Your task to perform on an android device: turn off picture-in-picture Image 0: 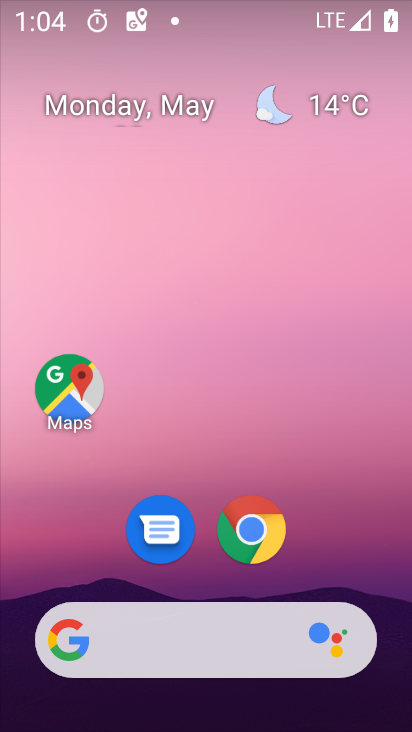
Step 0: drag from (395, 551) to (380, 205)
Your task to perform on an android device: turn off picture-in-picture Image 1: 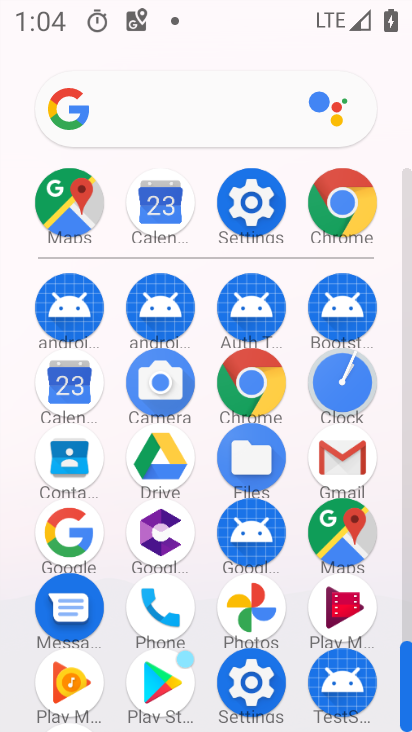
Step 1: click (278, 205)
Your task to perform on an android device: turn off picture-in-picture Image 2: 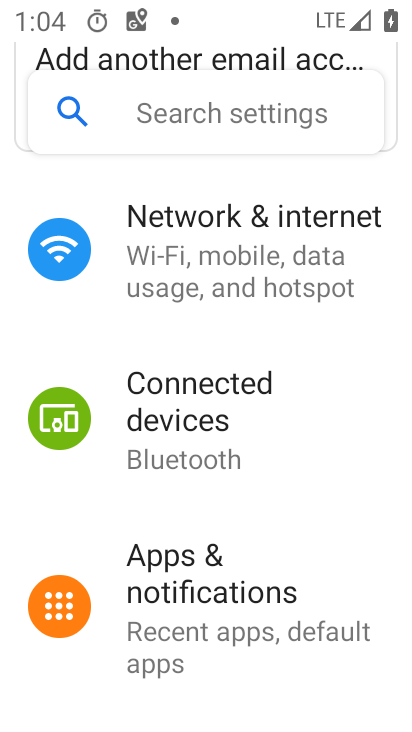
Step 2: drag from (356, 565) to (359, 432)
Your task to perform on an android device: turn off picture-in-picture Image 3: 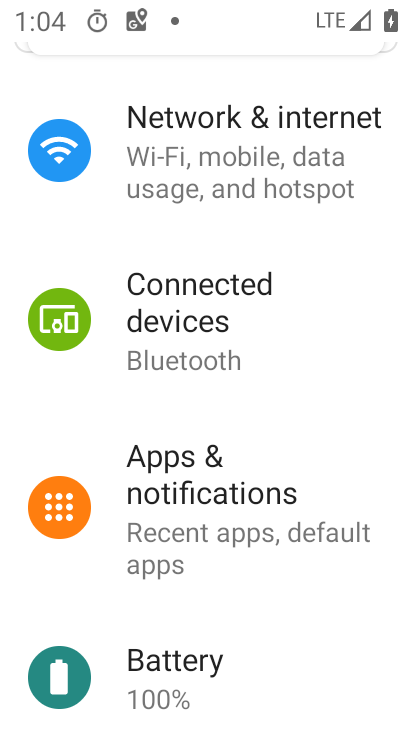
Step 3: drag from (364, 624) to (371, 483)
Your task to perform on an android device: turn off picture-in-picture Image 4: 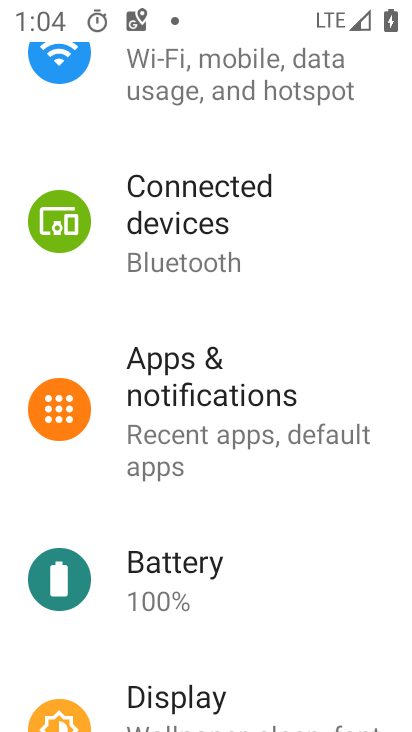
Step 4: drag from (375, 633) to (377, 511)
Your task to perform on an android device: turn off picture-in-picture Image 5: 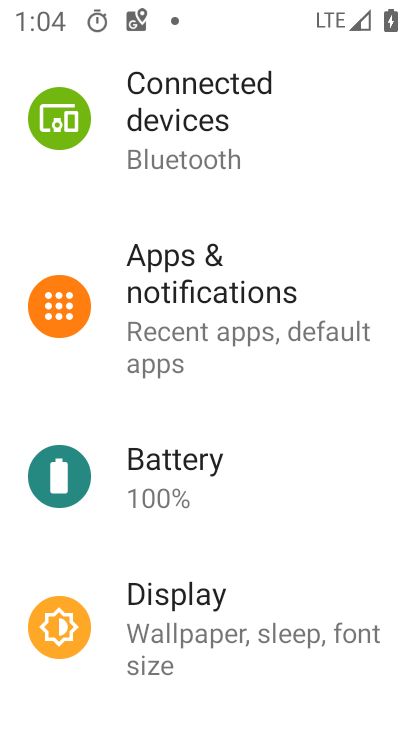
Step 5: drag from (385, 669) to (379, 564)
Your task to perform on an android device: turn off picture-in-picture Image 6: 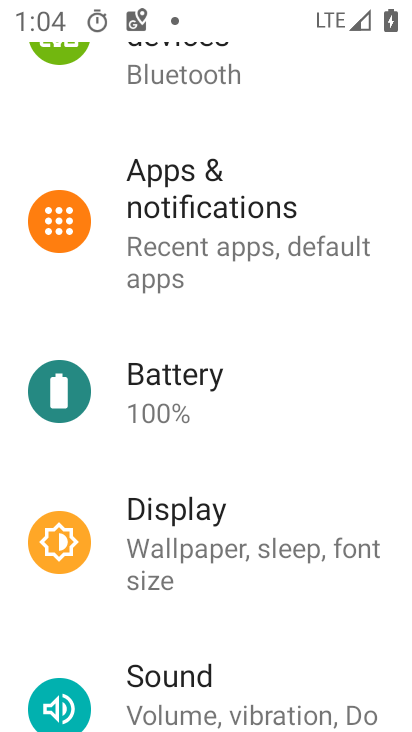
Step 6: drag from (379, 665) to (383, 551)
Your task to perform on an android device: turn off picture-in-picture Image 7: 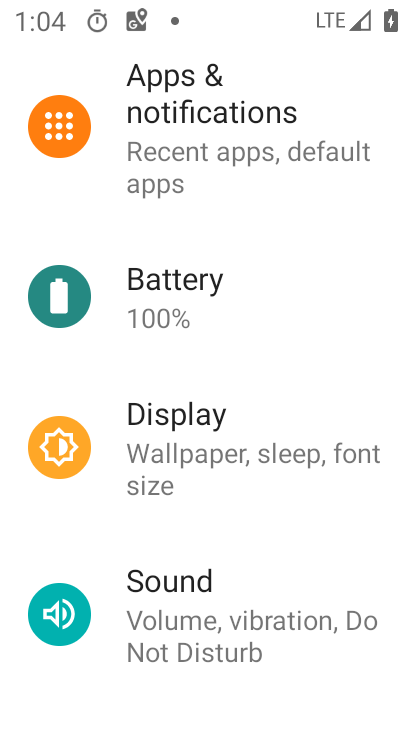
Step 7: drag from (377, 679) to (377, 562)
Your task to perform on an android device: turn off picture-in-picture Image 8: 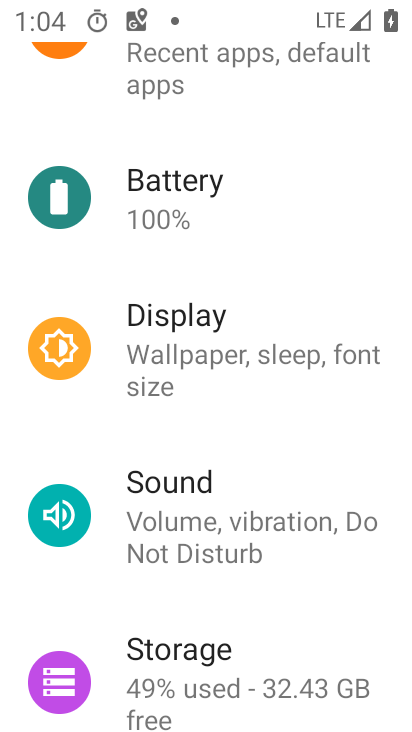
Step 8: drag from (380, 664) to (372, 551)
Your task to perform on an android device: turn off picture-in-picture Image 9: 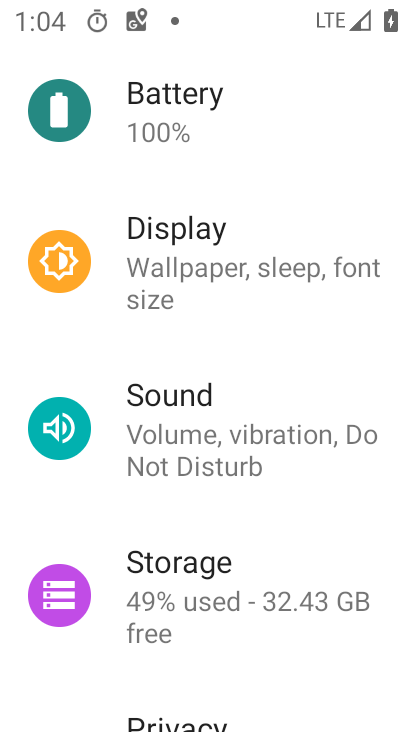
Step 9: drag from (386, 698) to (368, 538)
Your task to perform on an android device: turn off picture-in-picture Image 10: 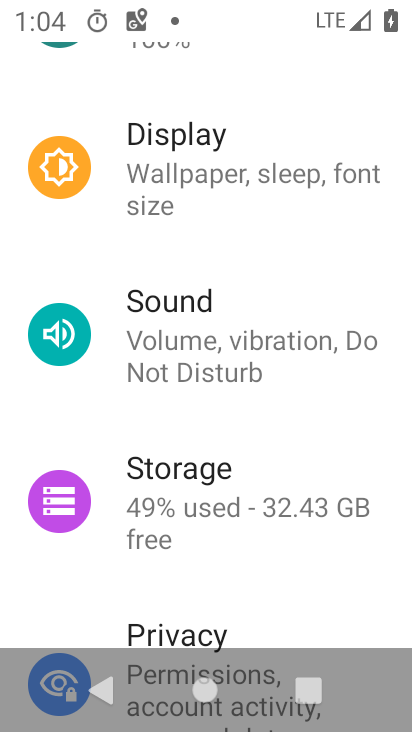
Step 10: drag from (365, 614) to (370, 481)
Your task to perform on an android device: turn off picture-in-picture Image 11: 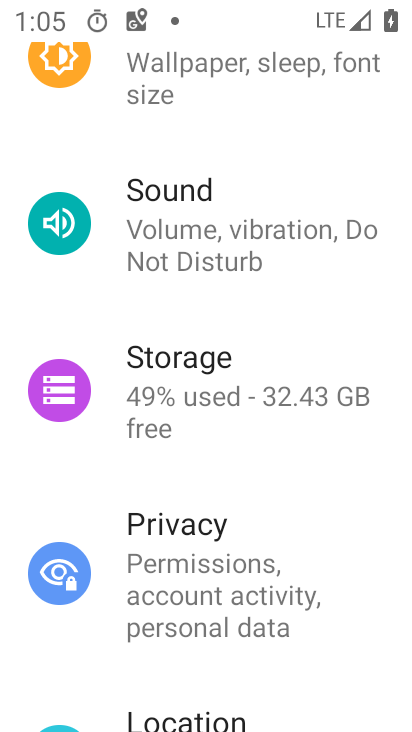
Step 11: drag from (362, 639) to (354, 531)
Your task to perform on an android device: turn off picture-in-picture Image 12: 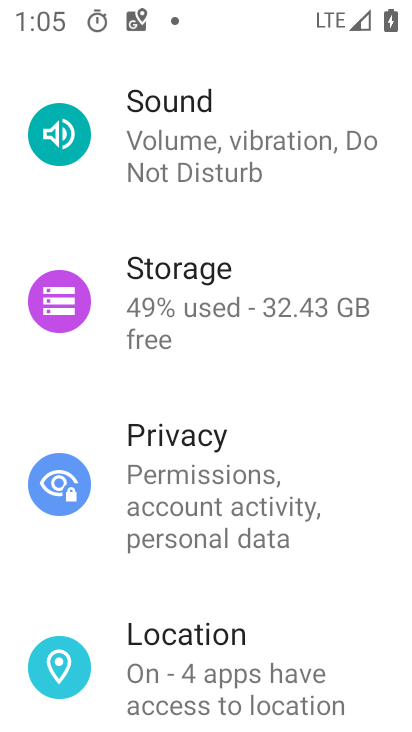
Step 12: drag from (350, 686) to (343, 543)
Your task to perform on an android device: turn off picture-in-picture Image 13: 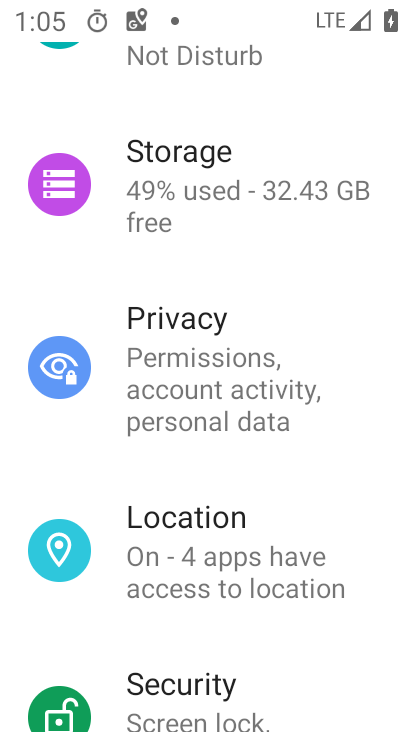
Step 13: drag from (364, 665) to (365, 545)
Your task to perform on an android device: turn off picture-in-picture Image 14: 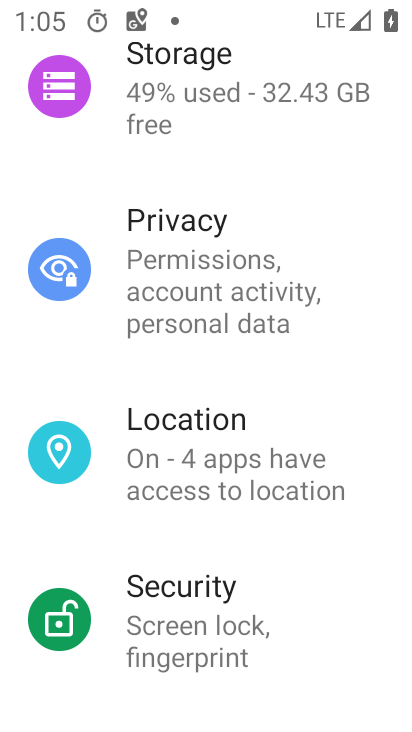
Step 14: drag from (363, 576) to (374, 418)
Your task to perform on an android device: turn off picture-in-picture Image 15: 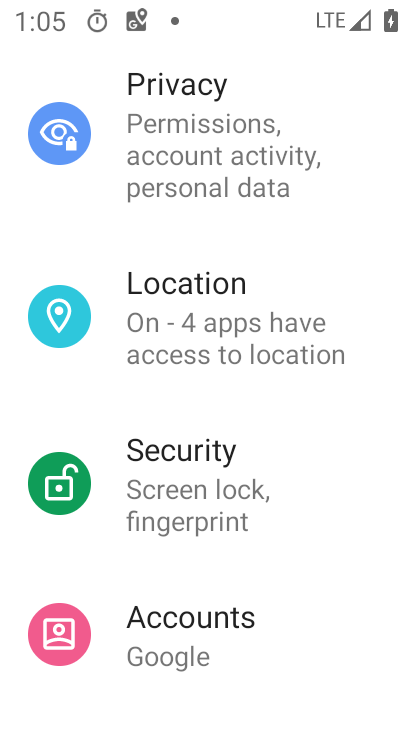
Step 15: drag from (354, 622) to (366, 394)
Your task to perform on an android device: turn off picture-in-picture Image 16: 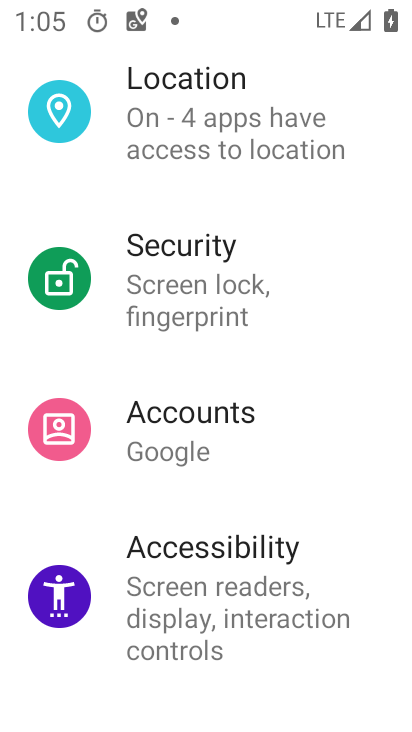
Step 16: drag from (358, 607) to (365, 369)
Your task to perform on an android device: turn off picture-in-picture Image 17: 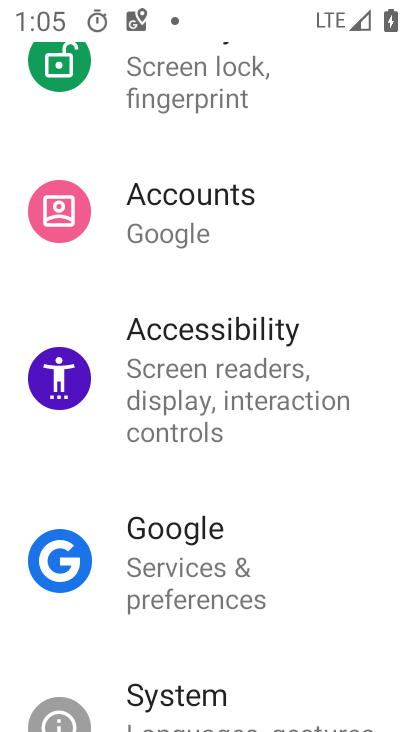
Step 17: drag from (350, 568) to (360, 363)
Your task to perform on an android device: turn off picture-in-picture Image 18: 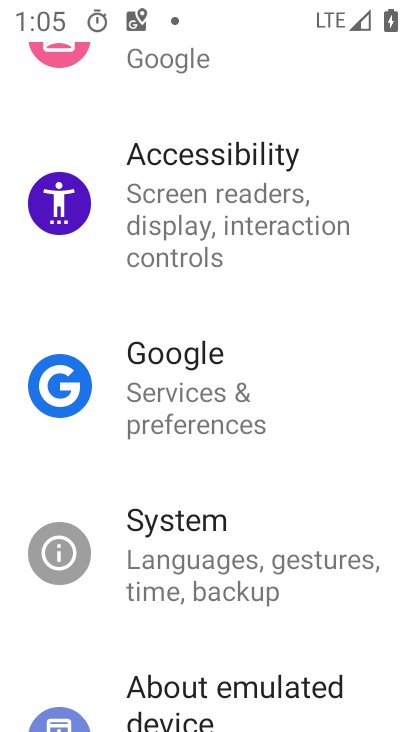
Step 18: drag from (357, 332) to (347, 475)
Your task to perform on an android device: turn off picture-in-picture Image 19: 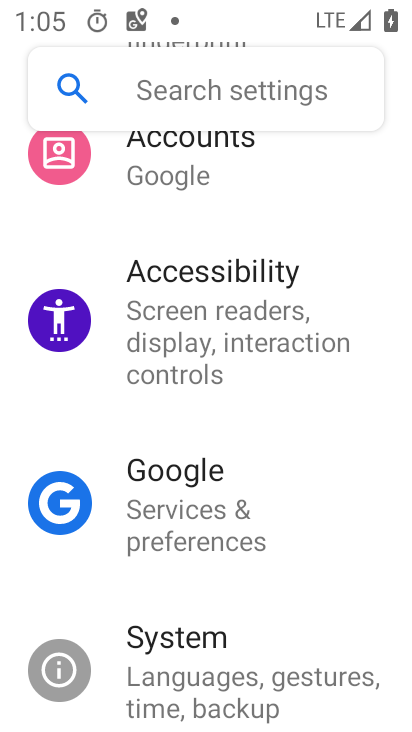
Step 19: drag from (371, 279) to (370, 411)
Your task to perform on an android device: turn off picture-in-picture Image 20: 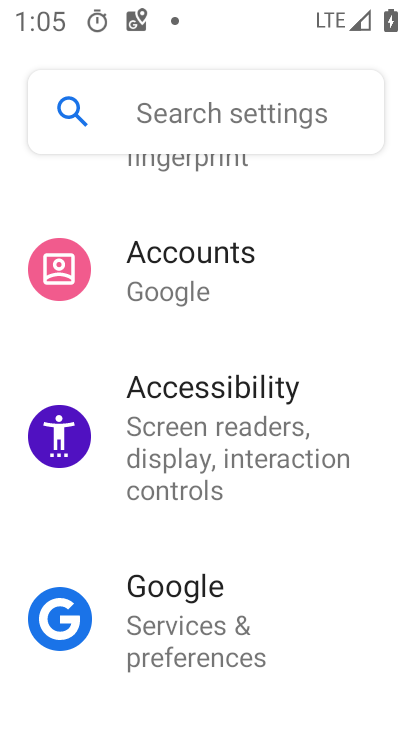
Step 20: drag from (371, 245) to (369, 382)
Your task to perform on an android device: turn off picture-in-picture Image 21: 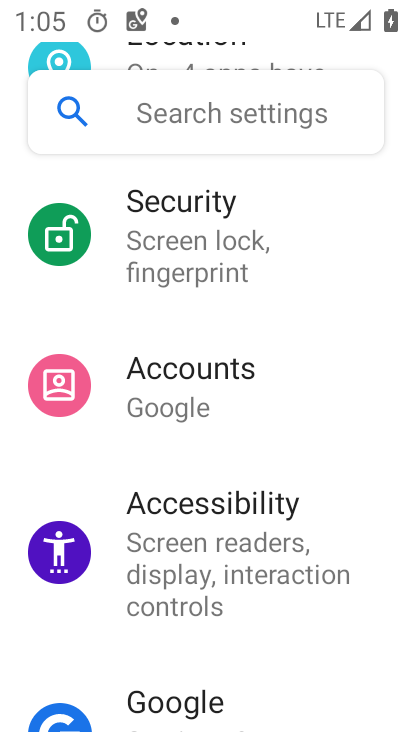
Step 21: drag from (353, 244) to (351, 374)
Your task to perform on an android device: turn off picture-in-picture Image 22: 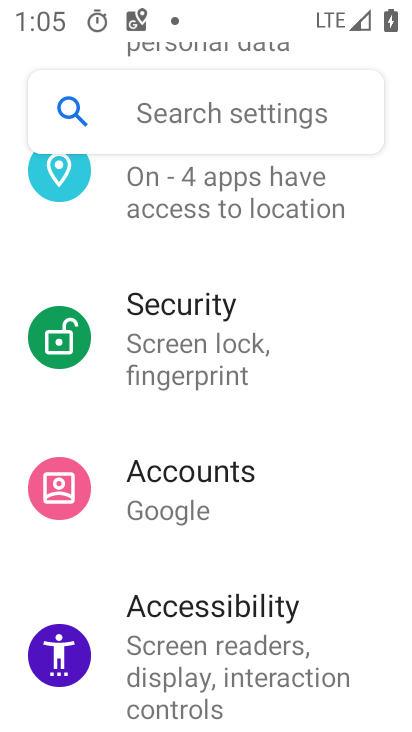
Step 22: drag from (382, 217) to (375, 386)
Your task to perform on an android device: turn off picture-in-picture Image 23: 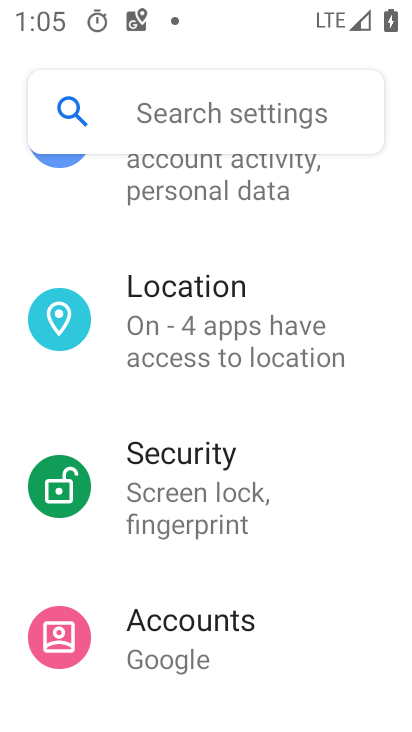
Step 23: drag from (357, 191) to (352, 346)
Your task to perform on an android device: turn off picture-in-picture Image 24: 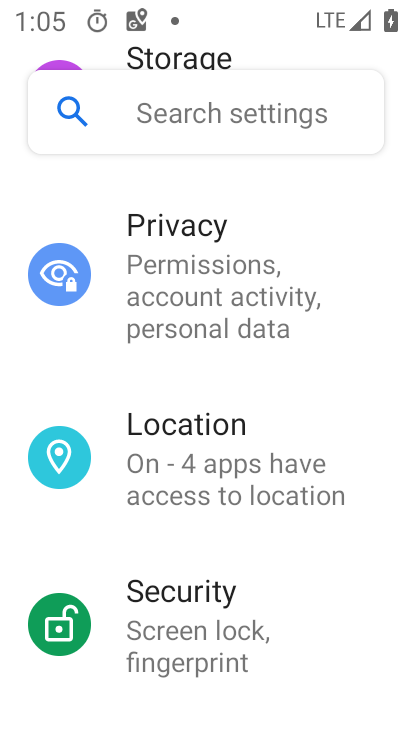
Step 24: drag from (349, 219) to (344, 348)
Your task to perform on an android device: turn off picture-in-picture Image 25: 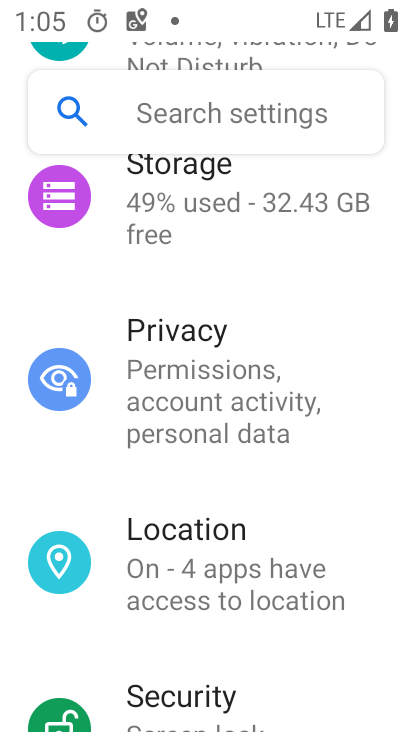
Step 25: drag from (344, 234) to (345, 348)
Your task to perform on an android device: turn off picture-in-picture Image 26: 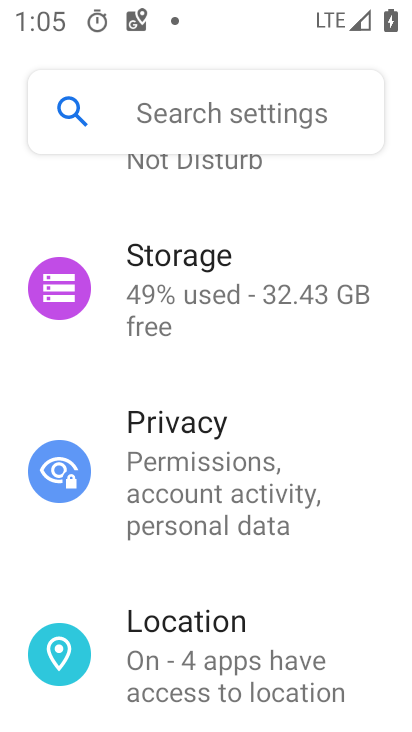
Step 26: drag from (349, 206) to (340, 363)
Your task to perform on an android device: turn off picture-in-picture Image 27: 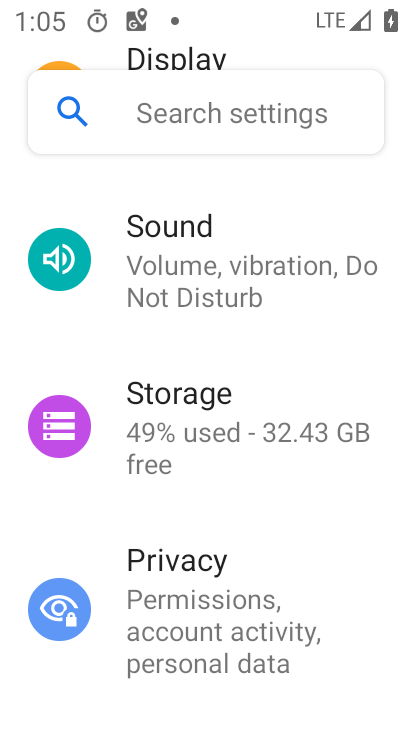
Step 27: drag from (365, 189) to (346, 348)
Your task to perform on an android device: turn off picture-in-picture Image 28: 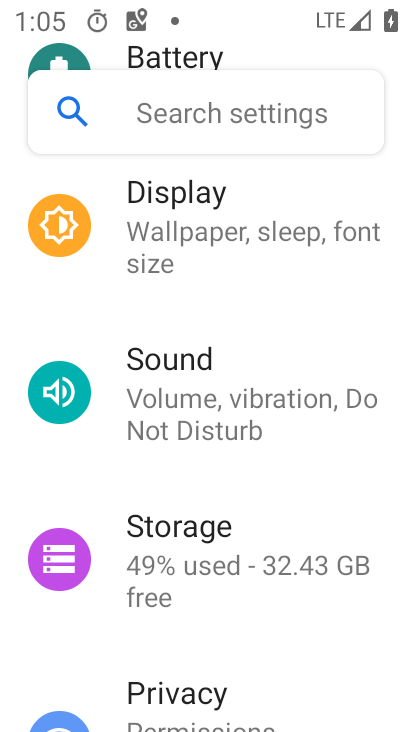
Step 28: drag from (382, 175) to (357, 309)
Your task to perform on an android device: turn off picture-in-picture Image 29: 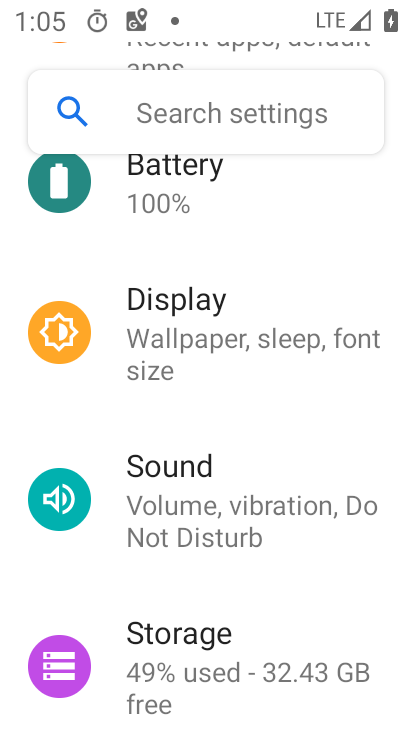
Step 29: drag from (349, 222) to (336, 355)
Your task to perform on an android device: turn off picture-in-picture Image 30: 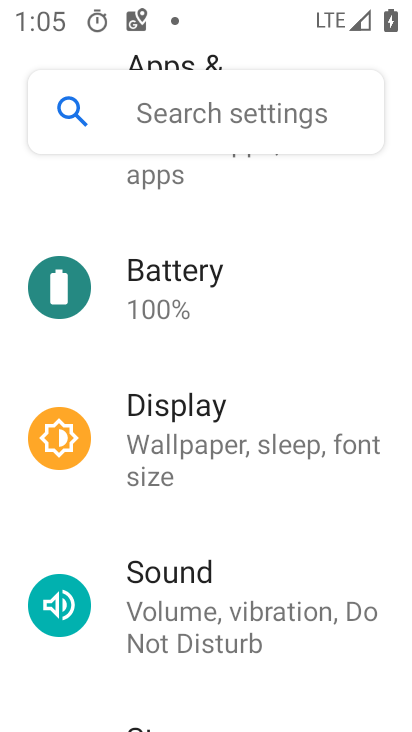
Step 30: drag from (345, 197) to (344, 351)
Your task to perform on an android device: turn off picture-in-picture Image 31: 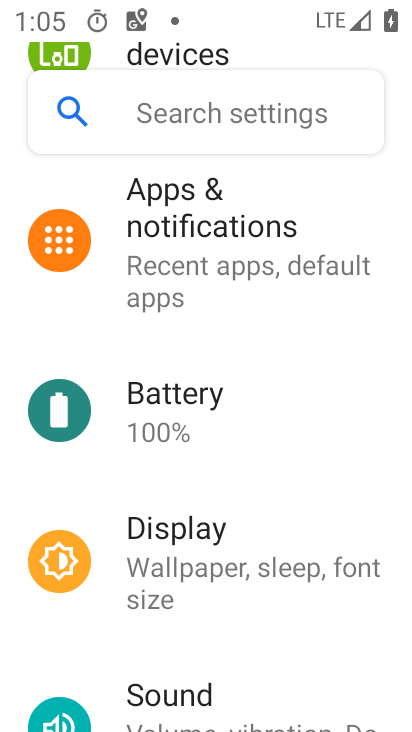
Step 31: click (282, 263)
Your task to perform on an android device: turn off picture-in-picture Image 32: 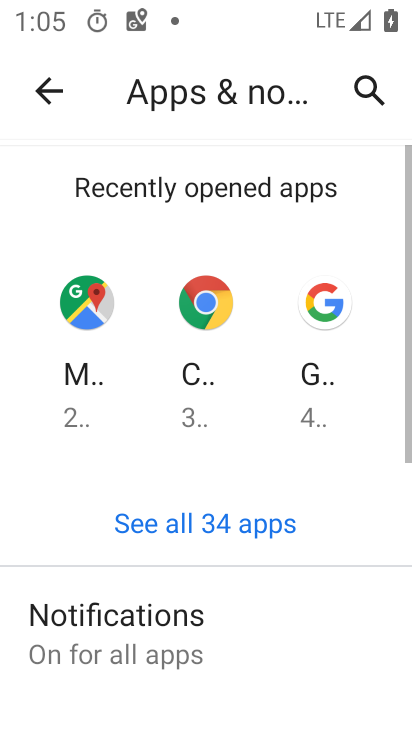
Step 32: drag from (294, 574) to (310, 424)
Your task to perform on an android device: turn off picture-in-picture Image 33: 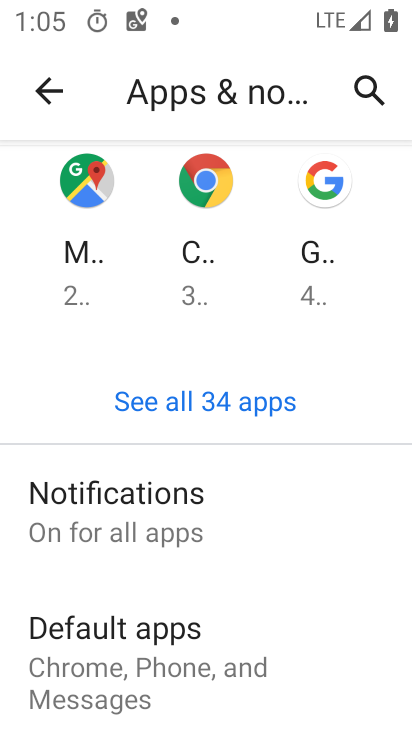
Step 33: drag from (310, 567) to (317, 431)
Your task to perform on an android device: turn off picture-in-picture Image 34: 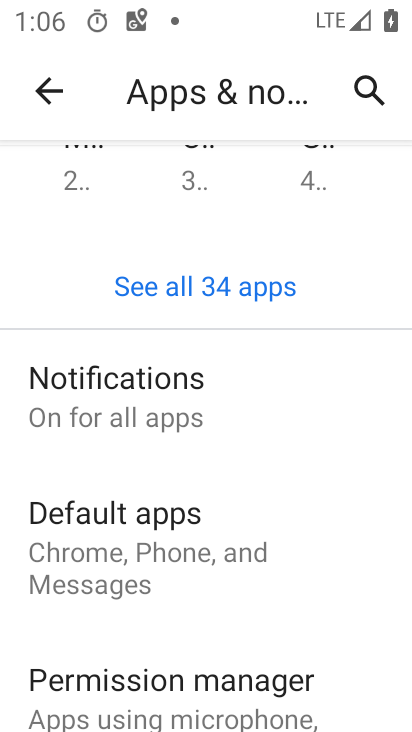
Step 34: drag from (312, 602) to (316, 451)
Your task to perform on an android device: turn off picture-in-picture Image 35: 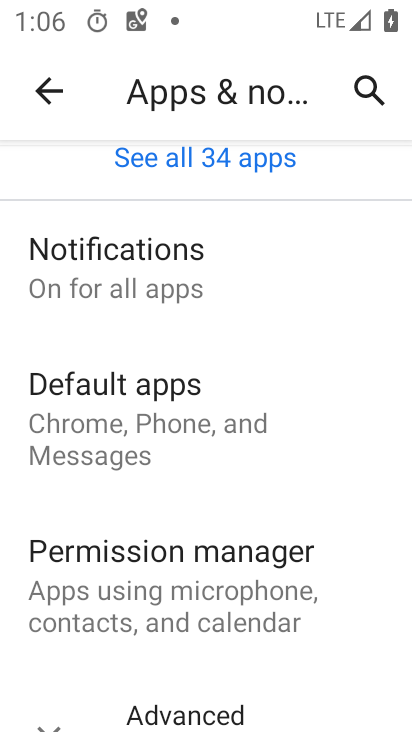
Step 35: drag from (300, 658) to (321, 470)
Your task to perform on an android device: turn off picture-in-picture Image 36: 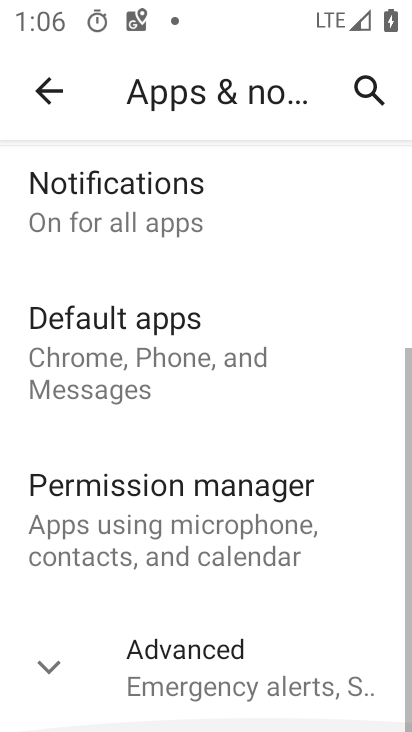
Step 36: click (309, 717)
Your task to perform on an android device: turn off picture-in-picture Image 37: 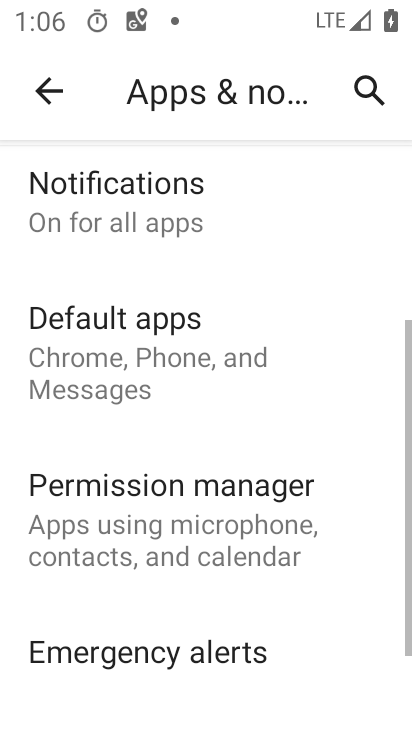
Step 37: drag from (320, 651) to (328, 518)
Your task to perform on an android device: turn off picture-in-picture Image 38: 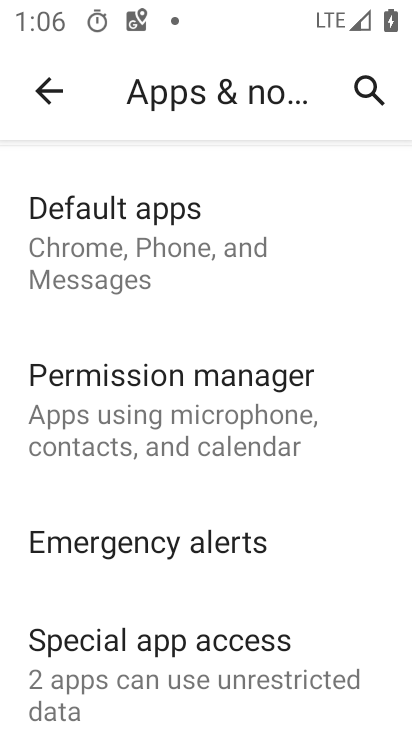
Step 38: drag from (353, 699) to (347, 556)
Your task to perform on an android device: turn off picture-in-picture Image 39: 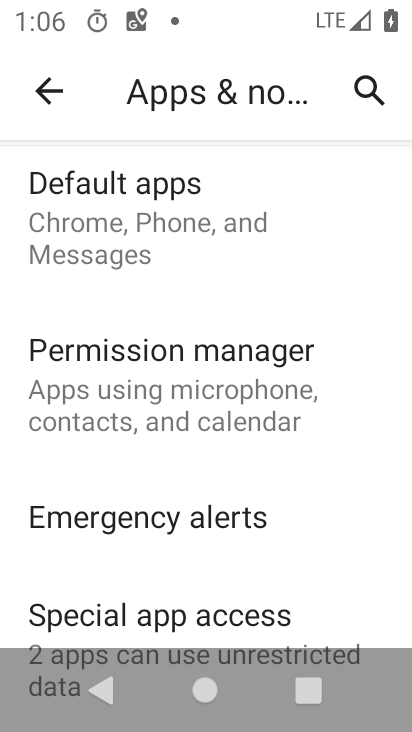
Step 39: click (271, 625)
Your task to perform on an android device: turn off picture-in-picture Image 40: 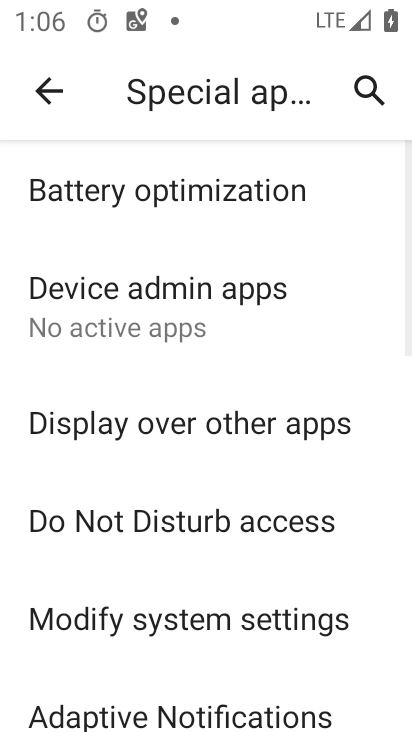
Step 40: drag from (265, 641) to (286, 496)
Your task to perform on an android device: turn off picture-in-picture Image 41: 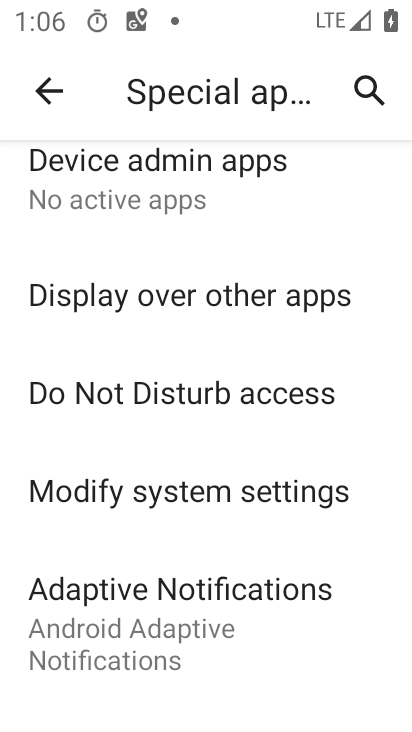
Step 41: drag from (352, 644) to (362, 507)
Your task to perform on an android device: turn off picture-in-picture Image 42: 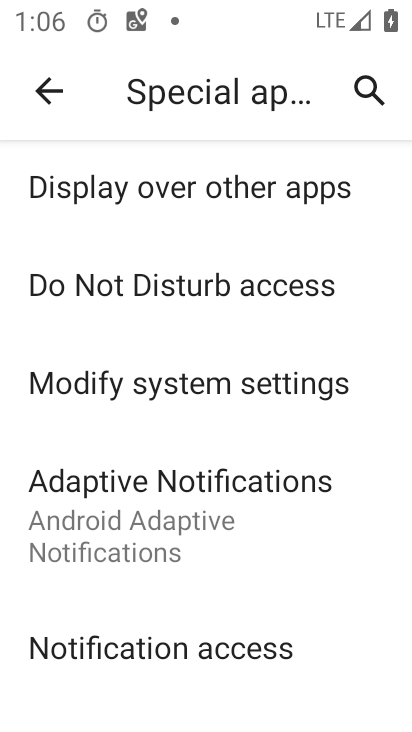
Step 42: drag from (334, 645) to (362, 436)
Your task to perform on an android device: turn off picture-in-picture Image 43: 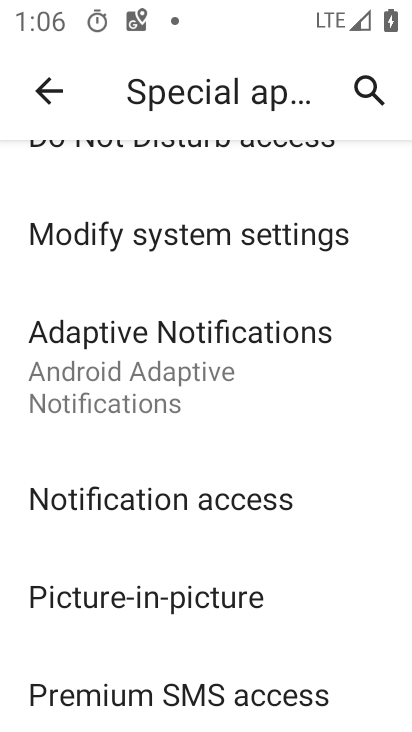
Step 43: click (249, 619)
Your task to perform on an android device: turn off picture-in-picture Image 44: 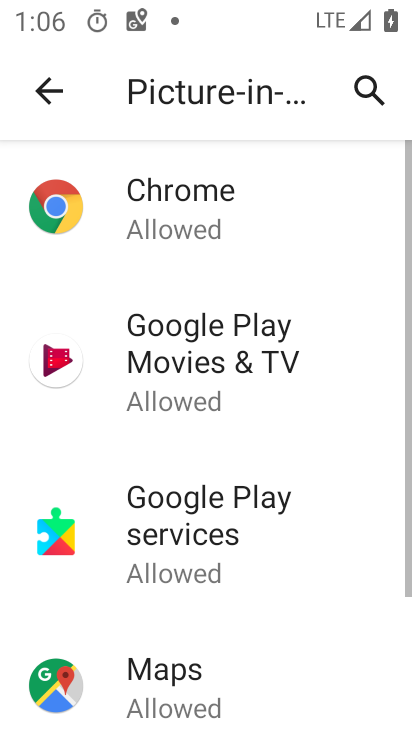
Step 44: drag from (267, 647) to (296, 408)
Your task to perform on an android device: turn off picture-in-picture Image 45: 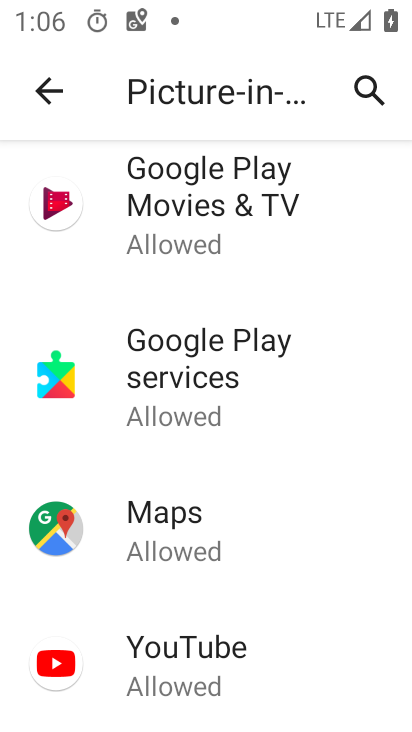
Step 45: click (246, 665)
Your task to perform on an android device: turn off picture-in-picture Image 46: 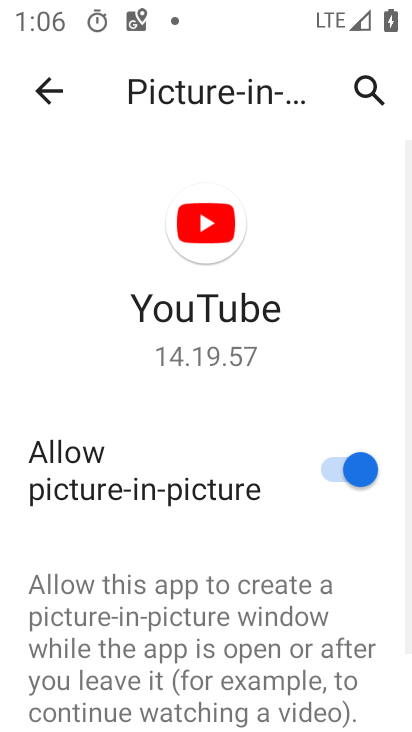
Step 46: click (372, 466)
Your task to perform on an android device: turn off picture-in-picture Image 47: 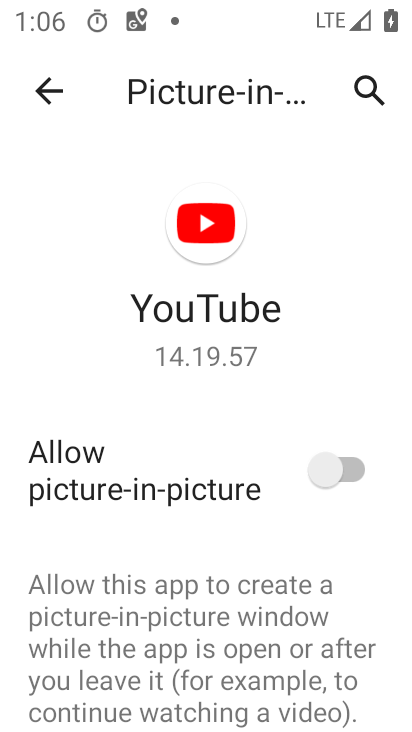
Step 47: task complete